Your task to perform on an android device: Open Chrome and go to the settings page Image 0: 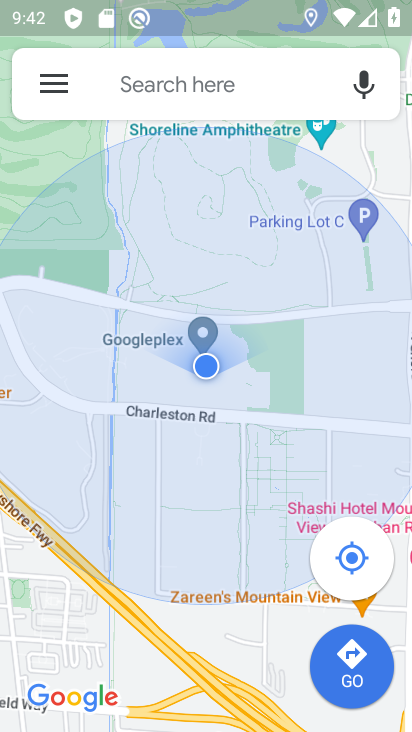
Step 0: press home button
Your task to perform on an android device: Open Chrome and go to the settings page Image 1: 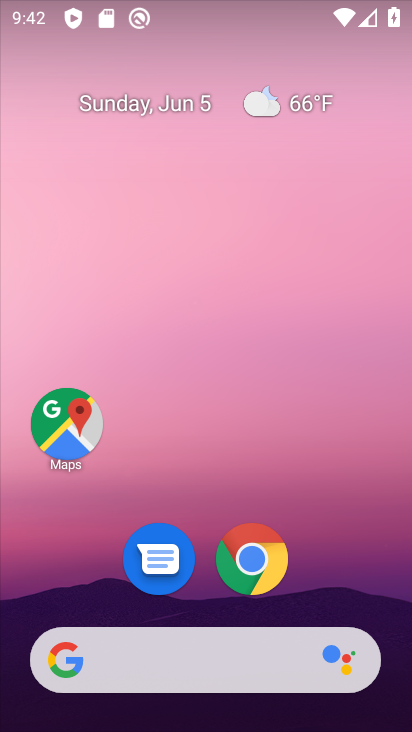
Step 1: drag from (204, 600) to (255, 3)
Your task to perform on an android device: Open Chrome and go to the settings page Image 2: 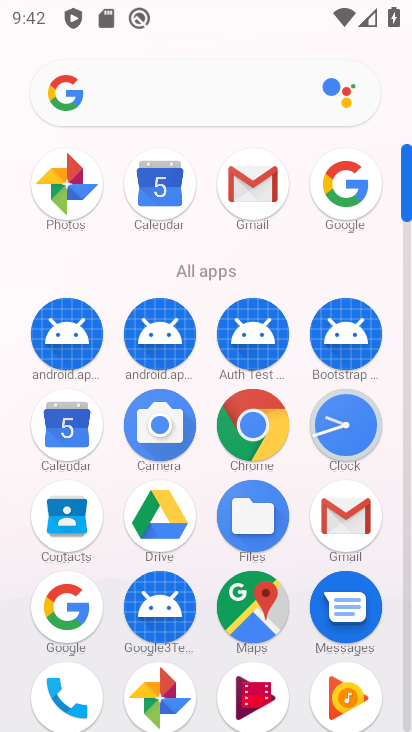
Step 2: drag from (213, 568) to (223, 70)
Your task to perform on an android device: Open Chrome and go to the settings page Image 3: 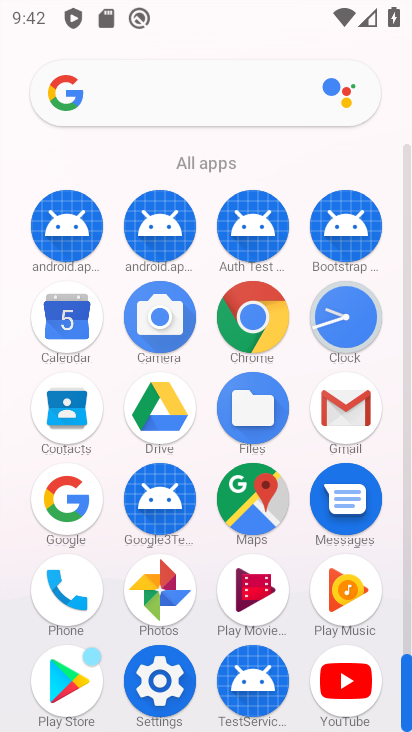
Step 3: click (155, 674)
Your task to perform on an android device: Open Chrome and go to the settings page Image 4: 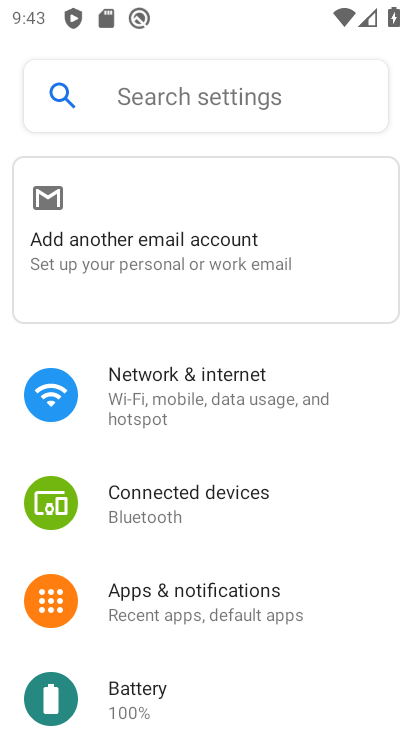
Step 4: press home button
Your task to perform on an android device: Open Chrome and go to the settings page Image 5: 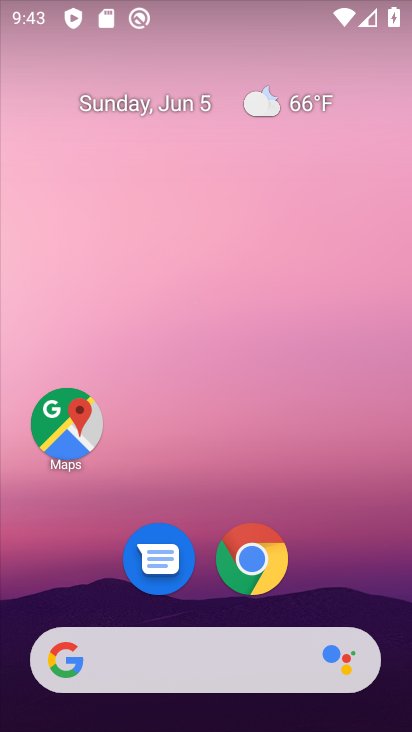
Step 5: click (249, 553)
Your task to perform on an android device: Open Chrome and go to the settings page Image 6: 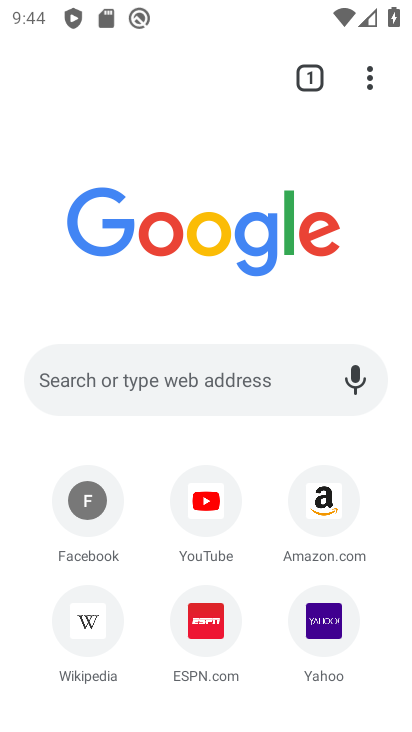
Step 6: click (370, 74)
Your task to perform on an android device: Open Chrome and go to the settings page Image 7: 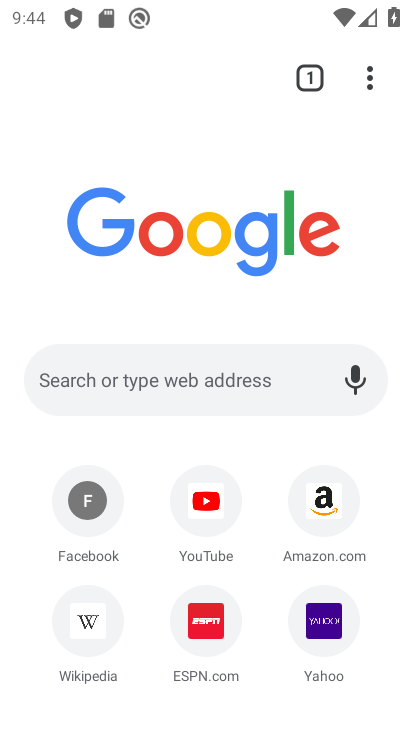
Step 7: click (374, 71)
Your task to perform on an android device: Open Chrome and go to the settings page Image 8: 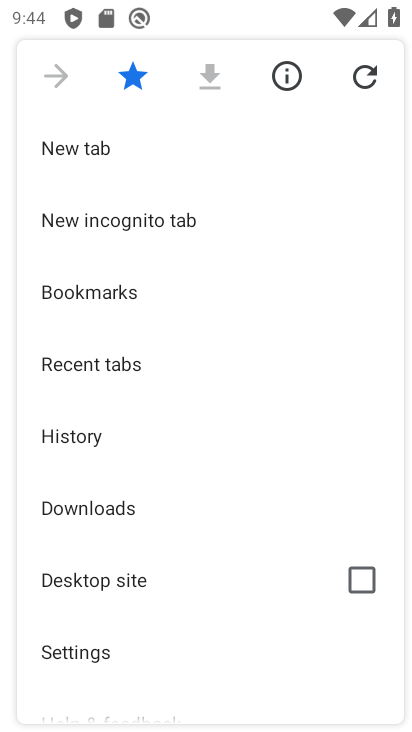
Step 8: click (164, 654)
Your task to perform on an android device: Open Chrome and go to the settings page Image 9: 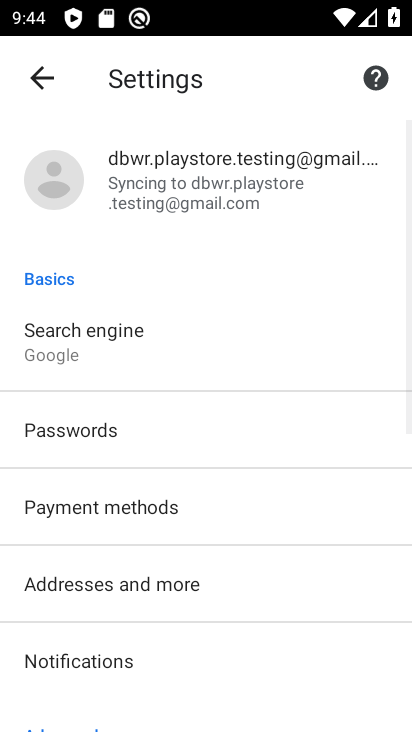
Step 9: task complete